Your task to perform on an android device: Open Maps and search for coffee Image 0: 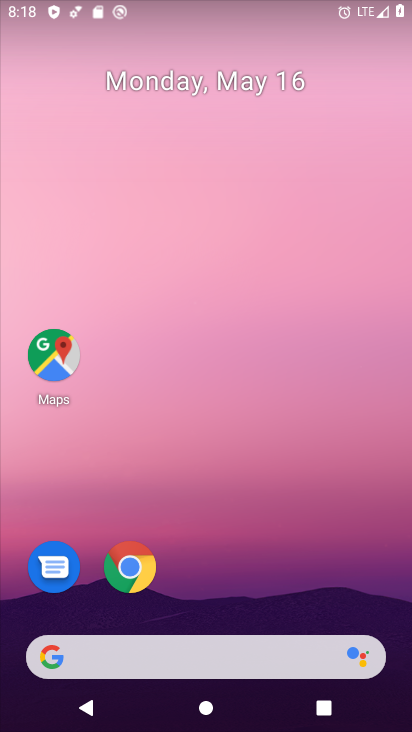
Step 0: click (50, 329)
Your task to perform on an android device: Open Maps and search for coffee Image 1: 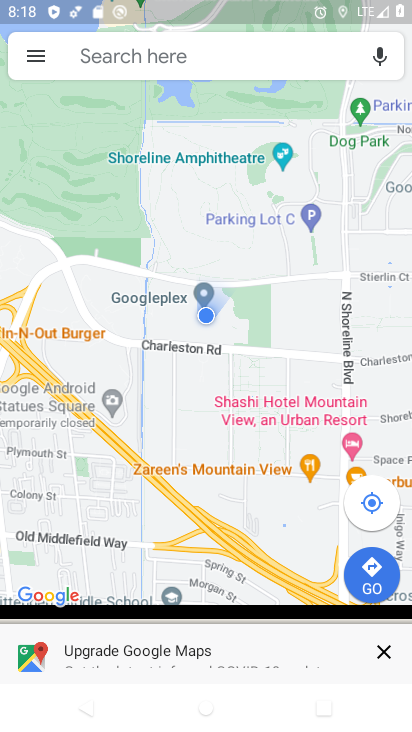
Step 1: click (172, 55)
Your task to perform on an android device: Open Maps and search for coffee Image 2: 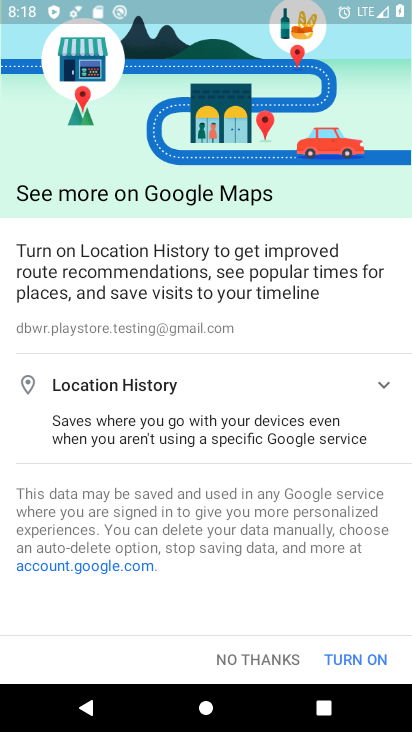
Step 2: click (354, 658)
Your task to perform on an android device: Open Maps and search for coffee Image 3: 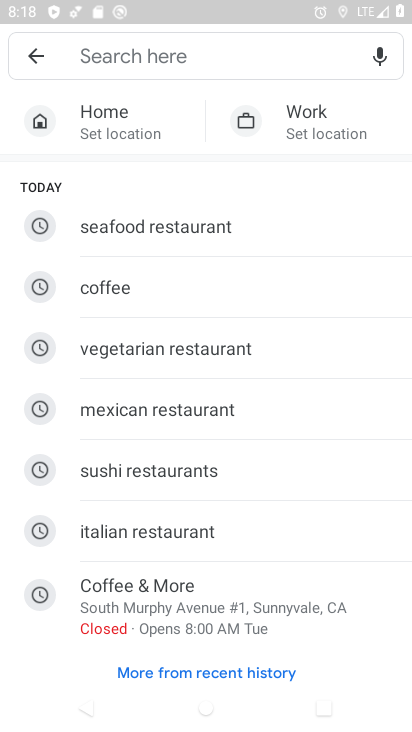
Step 3: click (105, 290)
Your task to perform on an android device: Open Maps and search for coffee Image 4: 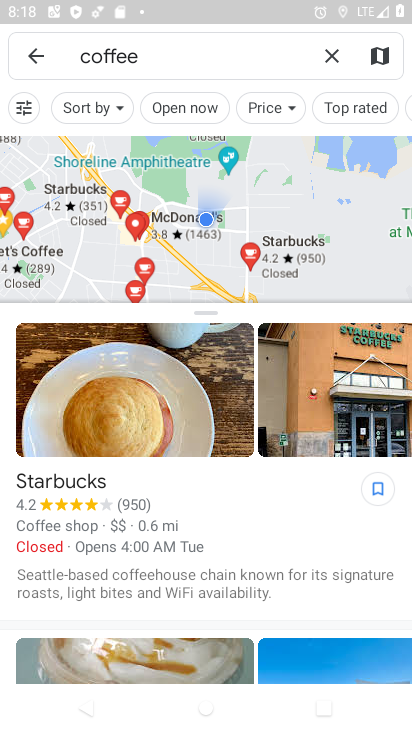
Step 4: task complete